Your task to perform on an android device: Open notification settings Image 0: 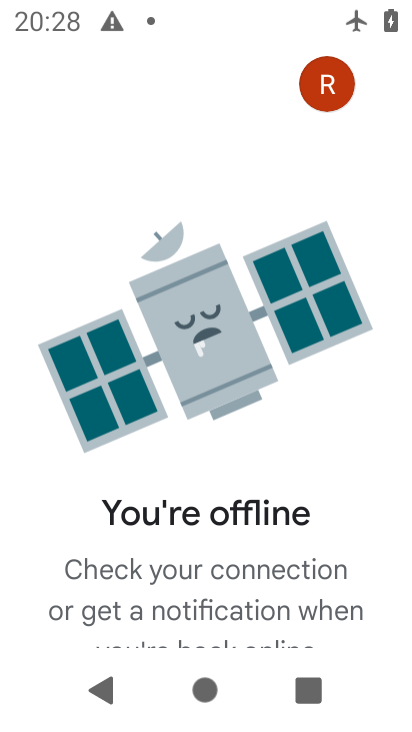
Step 0: press home button
Your task to perform on an android device: Open notification settings Image 1: 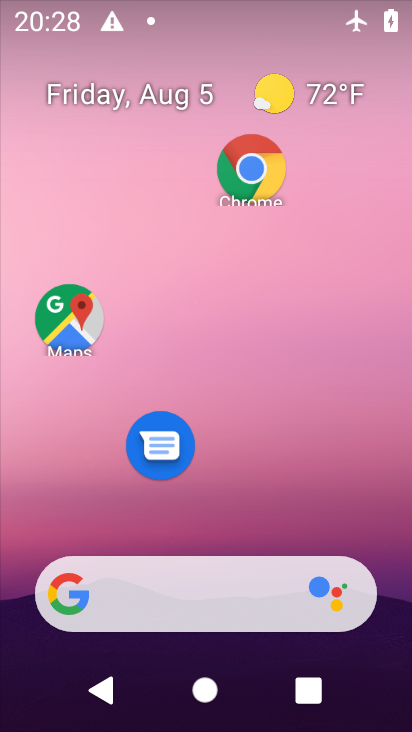
Step 1: drag from (228, 495) to (209, 138)
Your task to perform on an android device: Open notification settings Image 2: 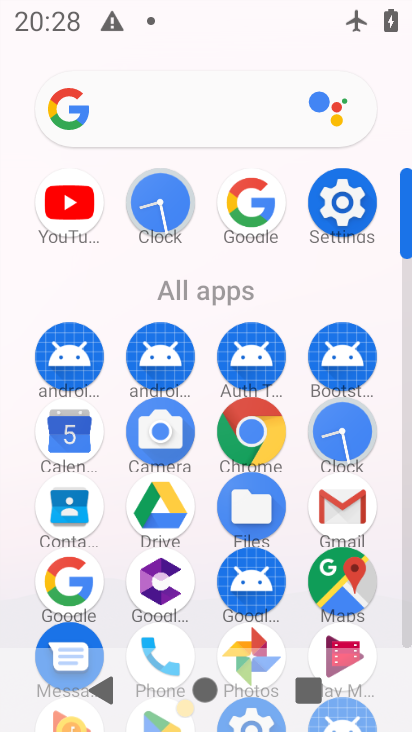
Step 2: click (315, 196)
Your task to perform on an android device: Open notification settings Image 3: 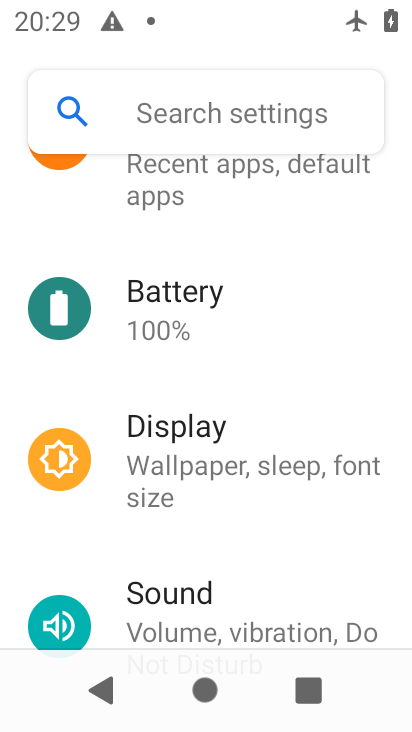
Step 3: drag from (246, 255) to (241, 522)
Your task to perform on an android device: Open notification settings Image 4: 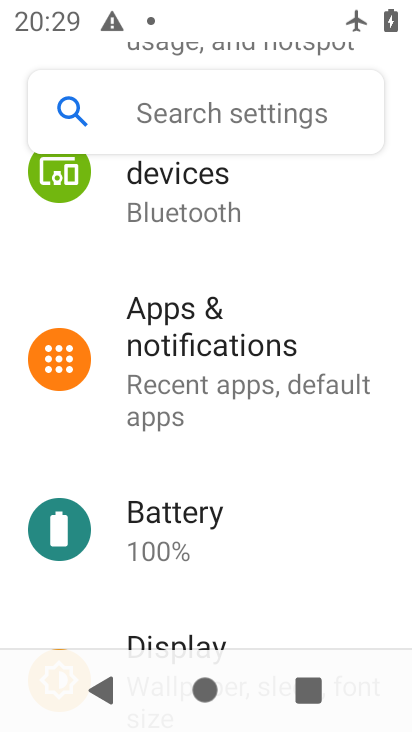
Step 4: click (242, 358)
Your task to perform on an android device: Open notification settings Image 5: 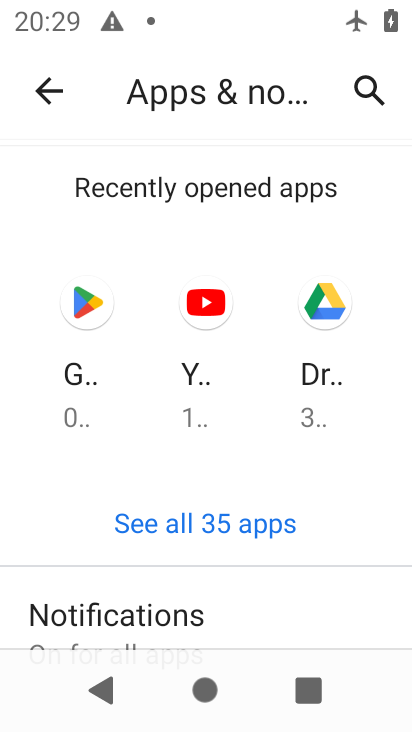
Step 5: click (283, 616)
Your task to perform on an android device: Open notification settings Image 6: 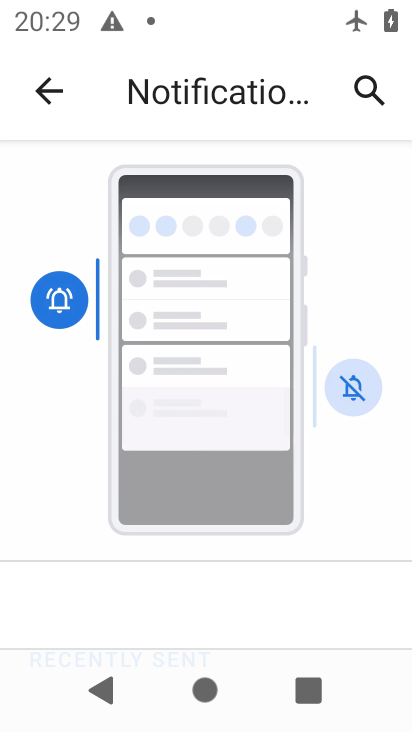
Step 6: task complete